Your task to perform on an android device: install app "Facebook" Image 0: 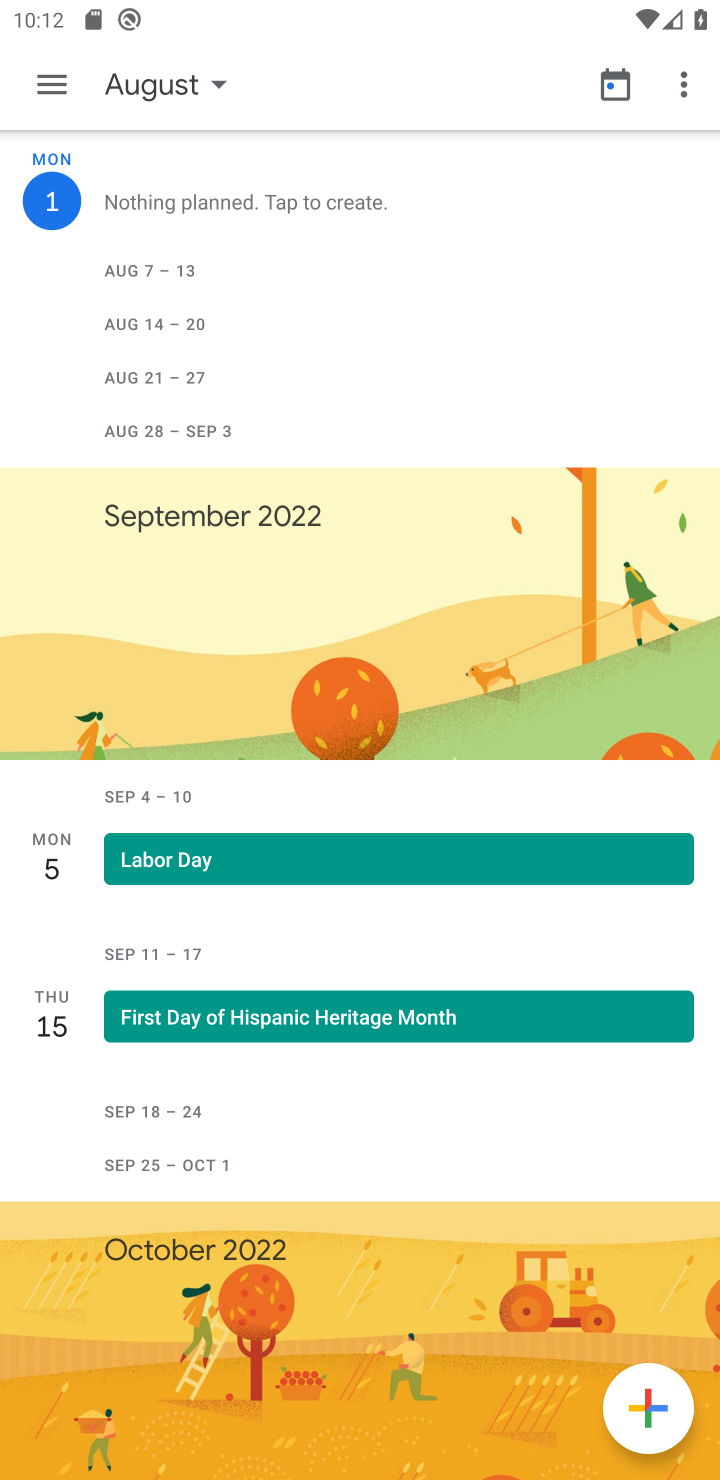
Step 0: press home button
Your task to perform on an android device: install app "Facebook" Image 1: 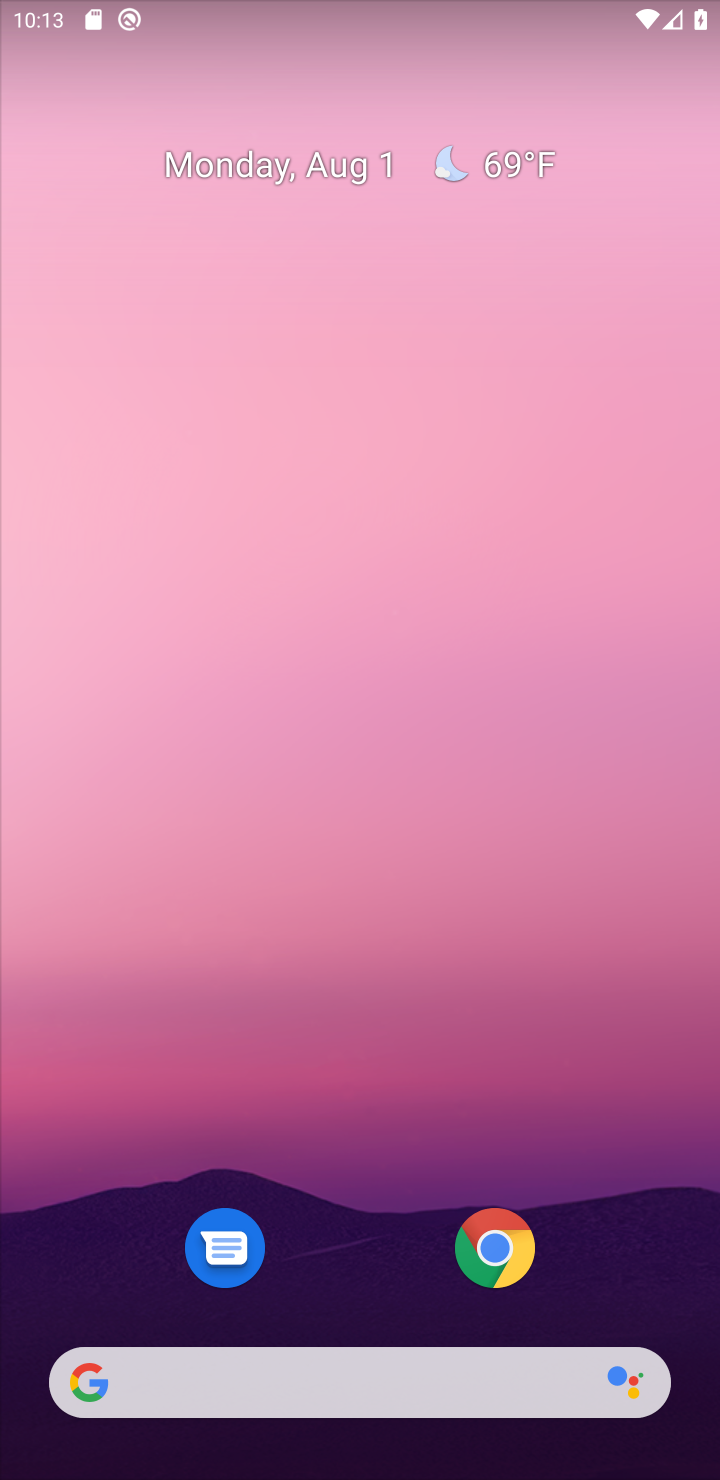
Step 1: drag from (316, 661) to (418, 113)
Your task to perform on an android device: install app "Facebook" Image 2: 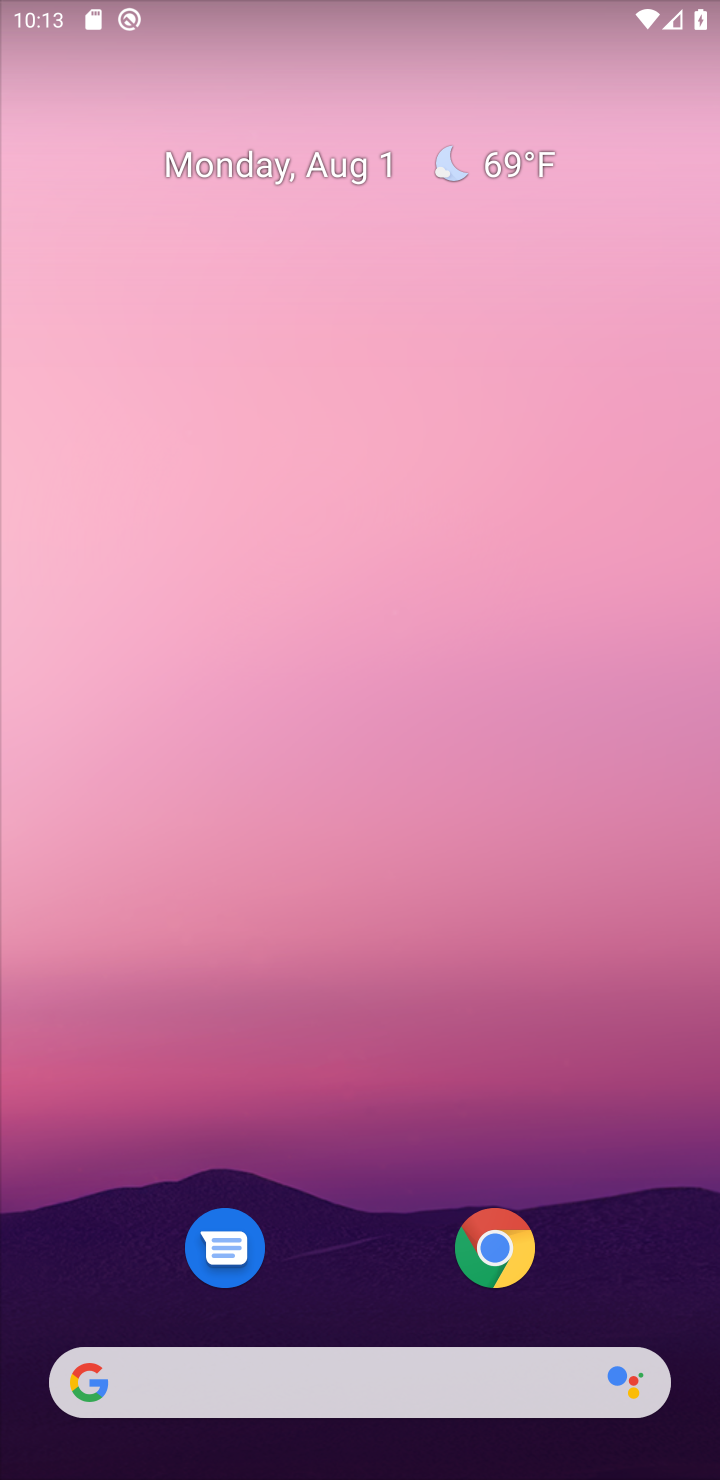
Step 2: drag from (355, 887) to (375, 95)
Your task to perform on an android device: install app "Facebook" Image 3: 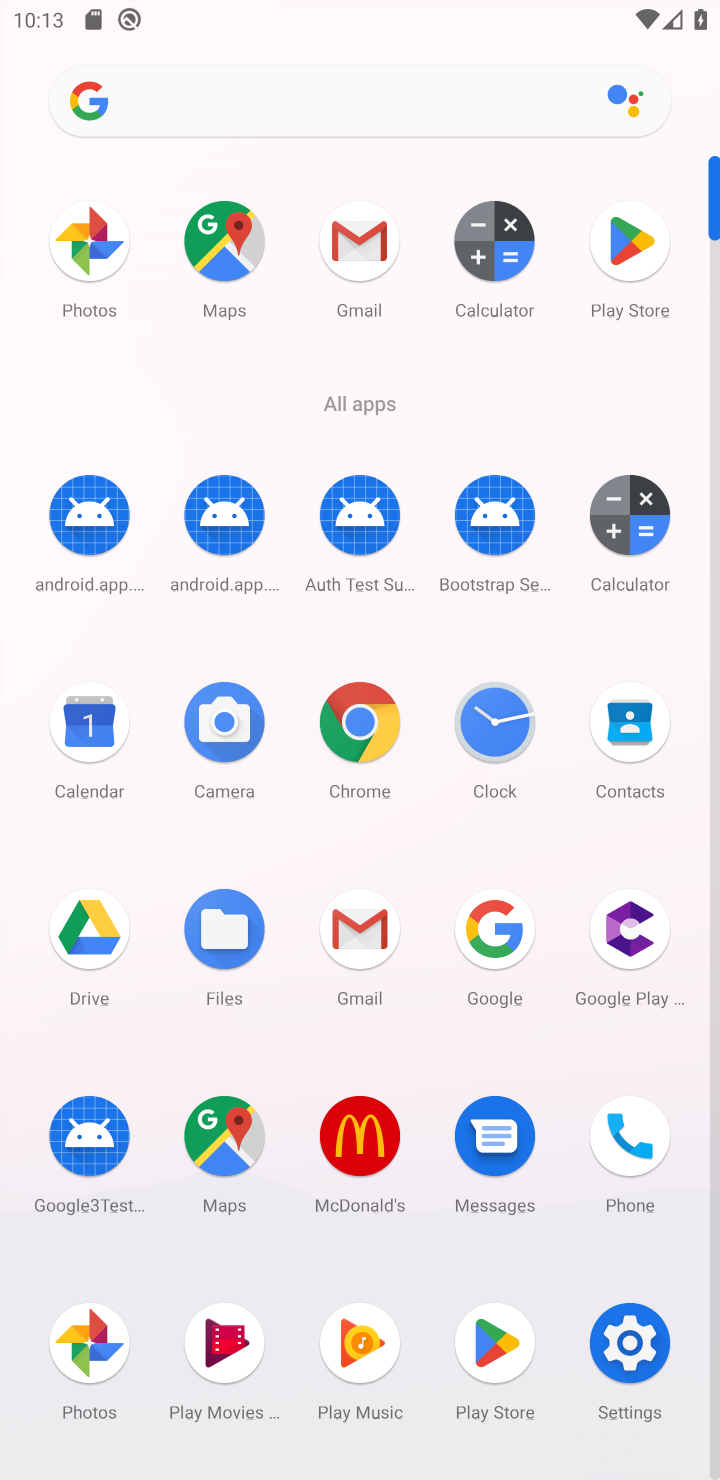
Step 3: click (607, 243)
Your task to perform on an android device: install app "Facebook" Image 4: 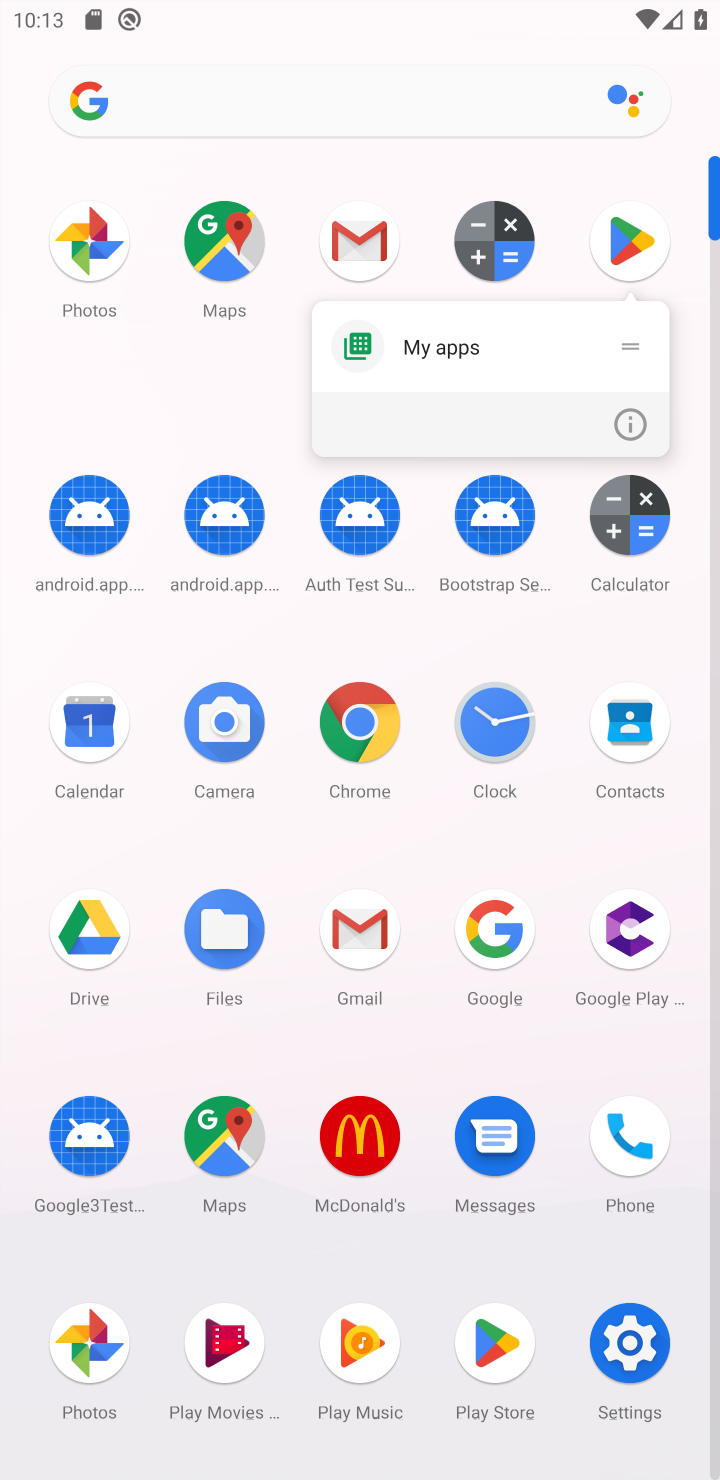
Step 4: click (620, 248)
Your task to perform on an android device: install app "Facebook" Image 5: 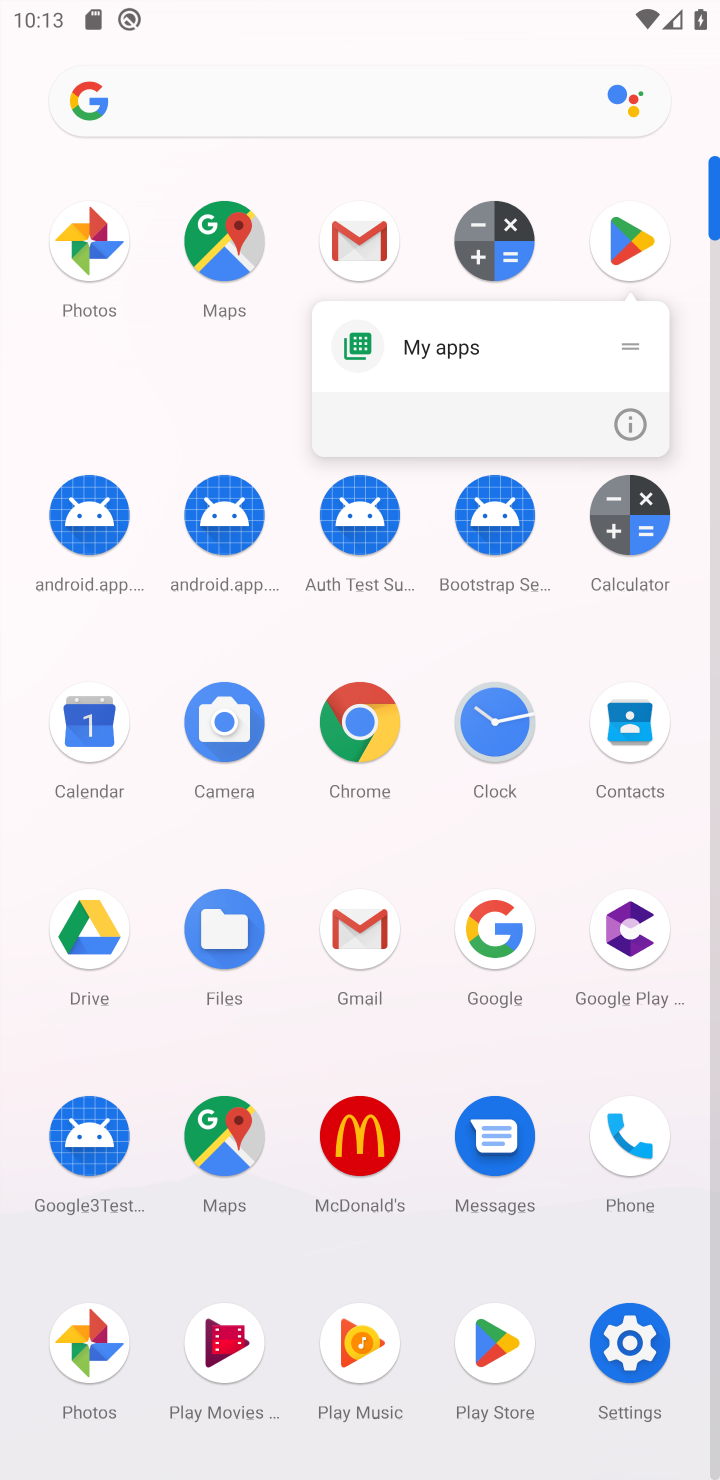
Step 5: click (497, 1346)
Your task to perform on an android device: install app "Facebook" Image 6: 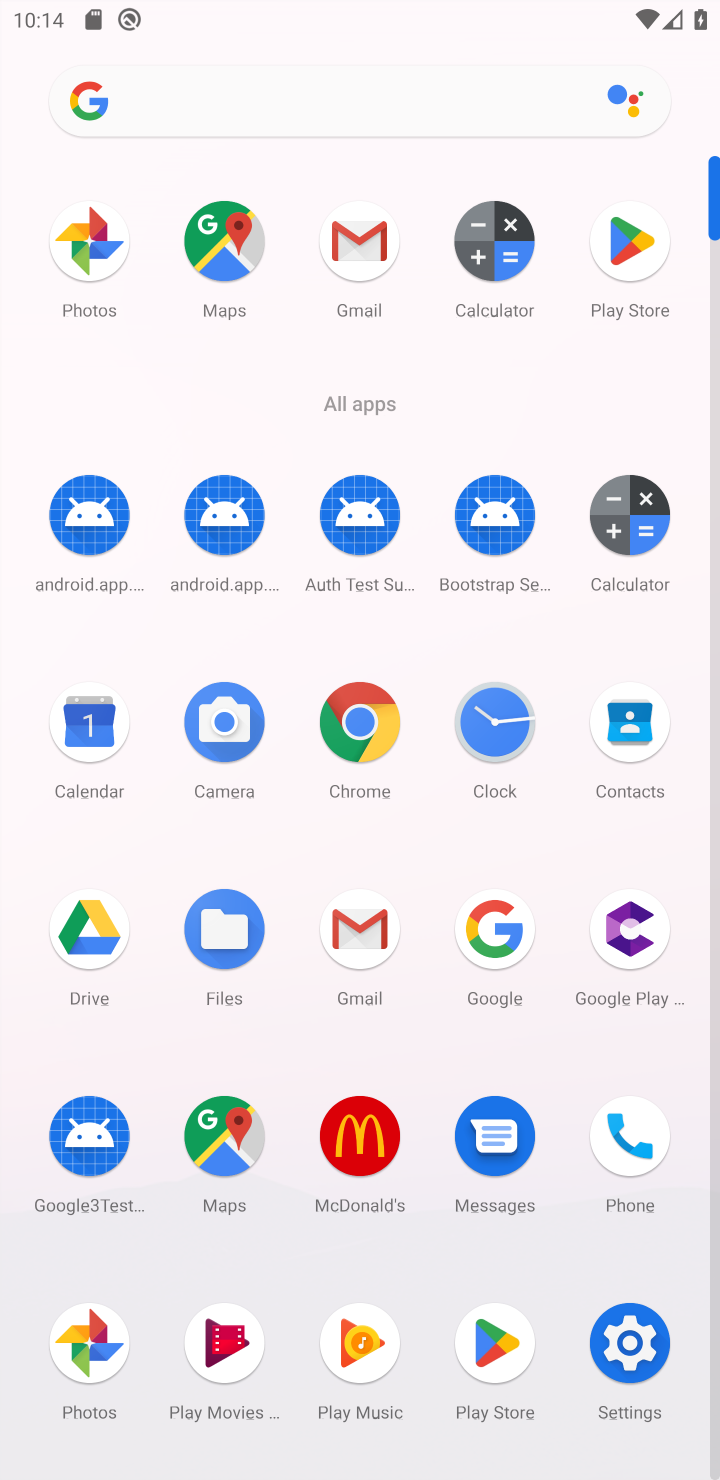
Step 6: click (492, 1347)
Your task to perform on an android device: install app "Facebook" Image 7: 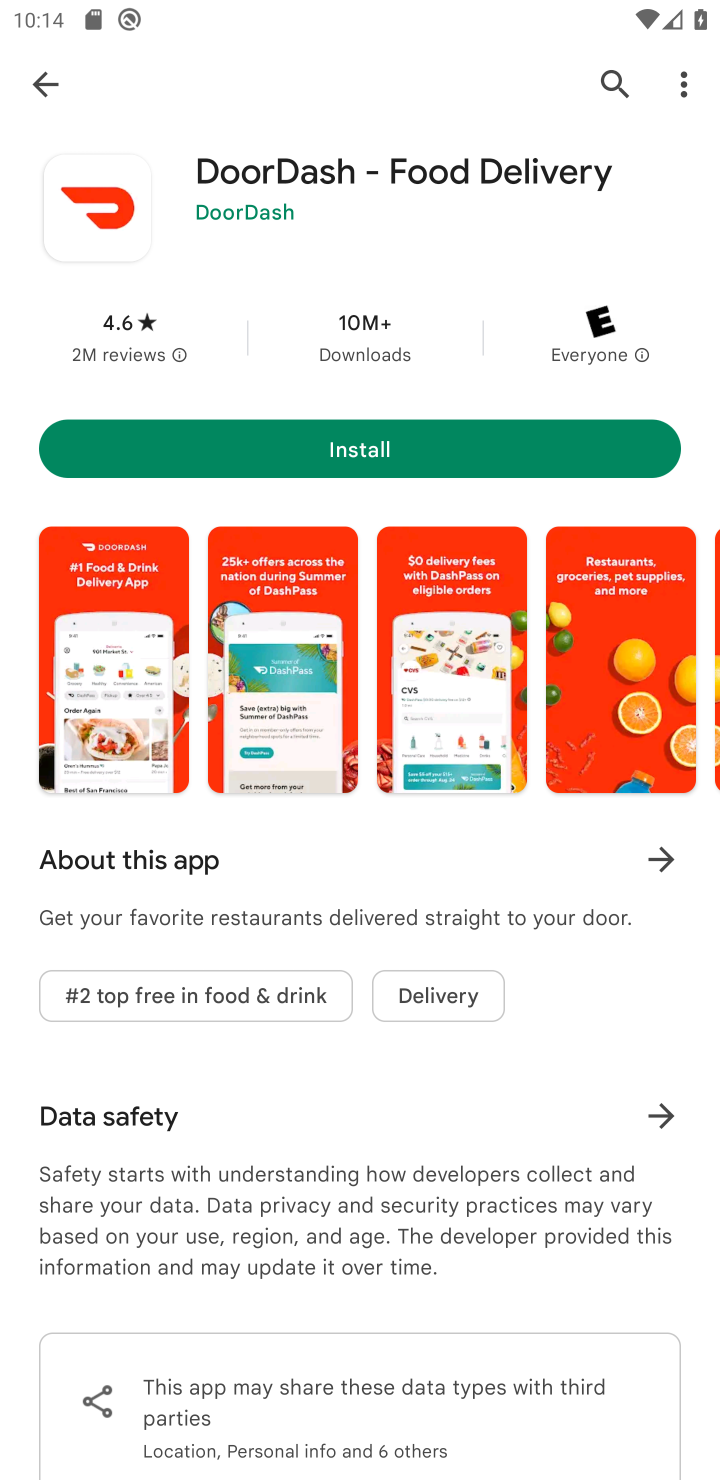
Step 7: click (544, 81)
Your task to perform on an android device: install app "Facebook" Image 8: 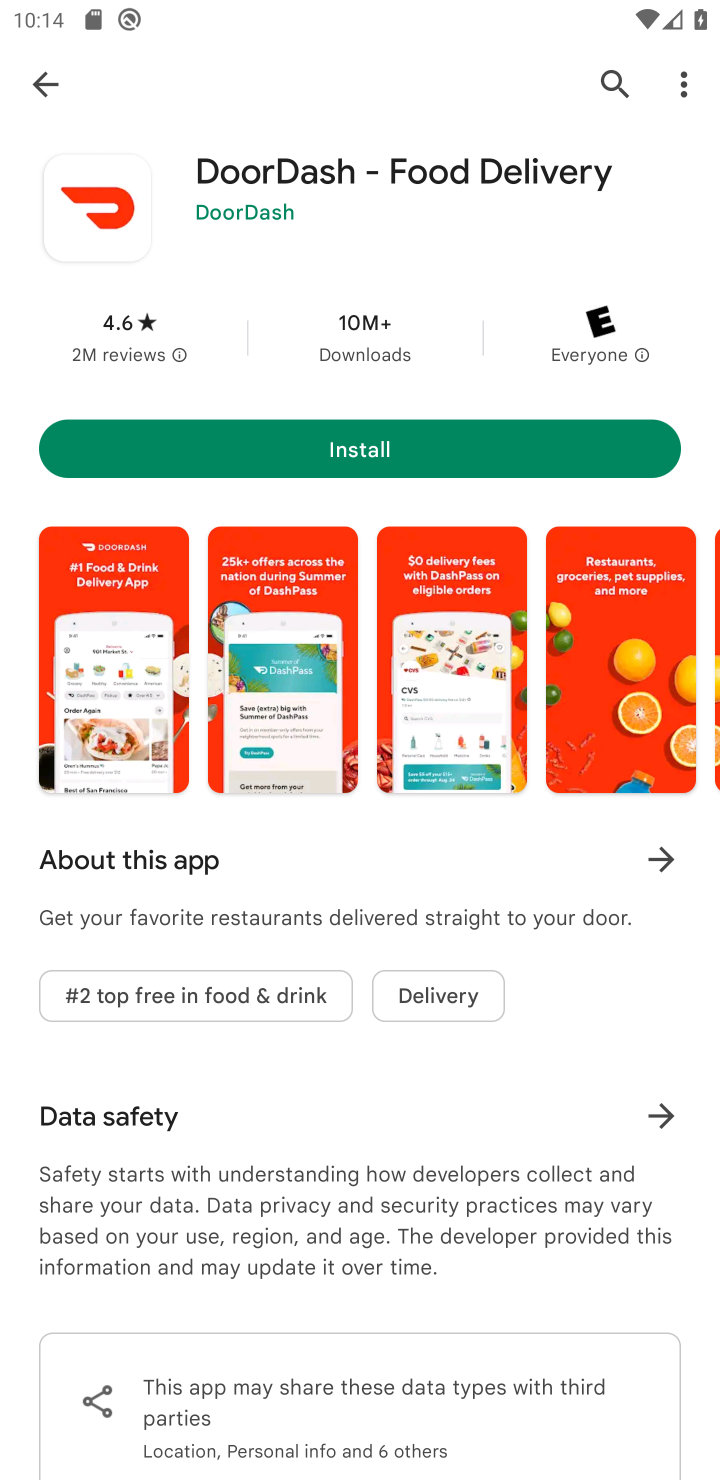
Step 8: click (616, 81)
Your task to perform on an android device: install app "Facebook" Image 9: 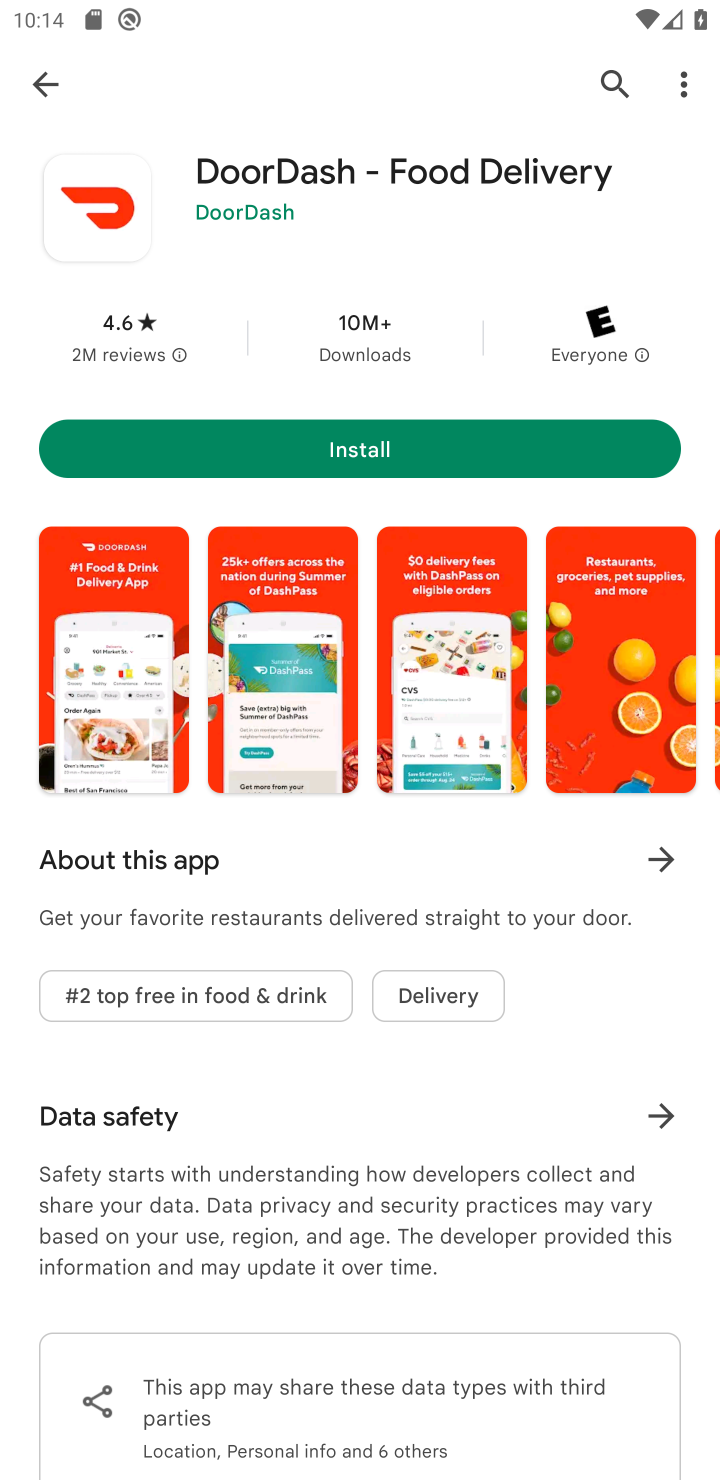
Step 9: click (616, 81)
Your task to perform on an android device: install app "Facebook" Image 10: 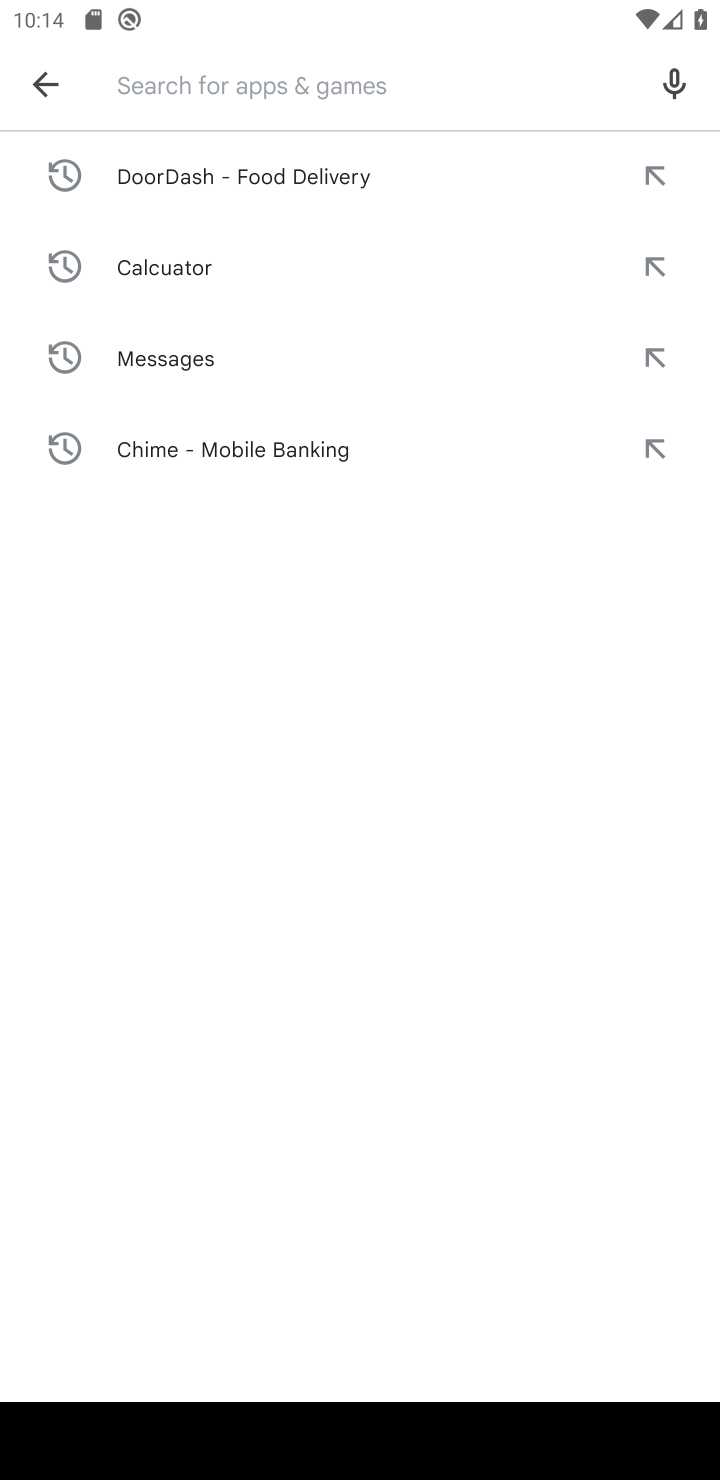
Step 10: type "Facebook"
Your task to perform on an android device: install app "Facebook" Image 11: 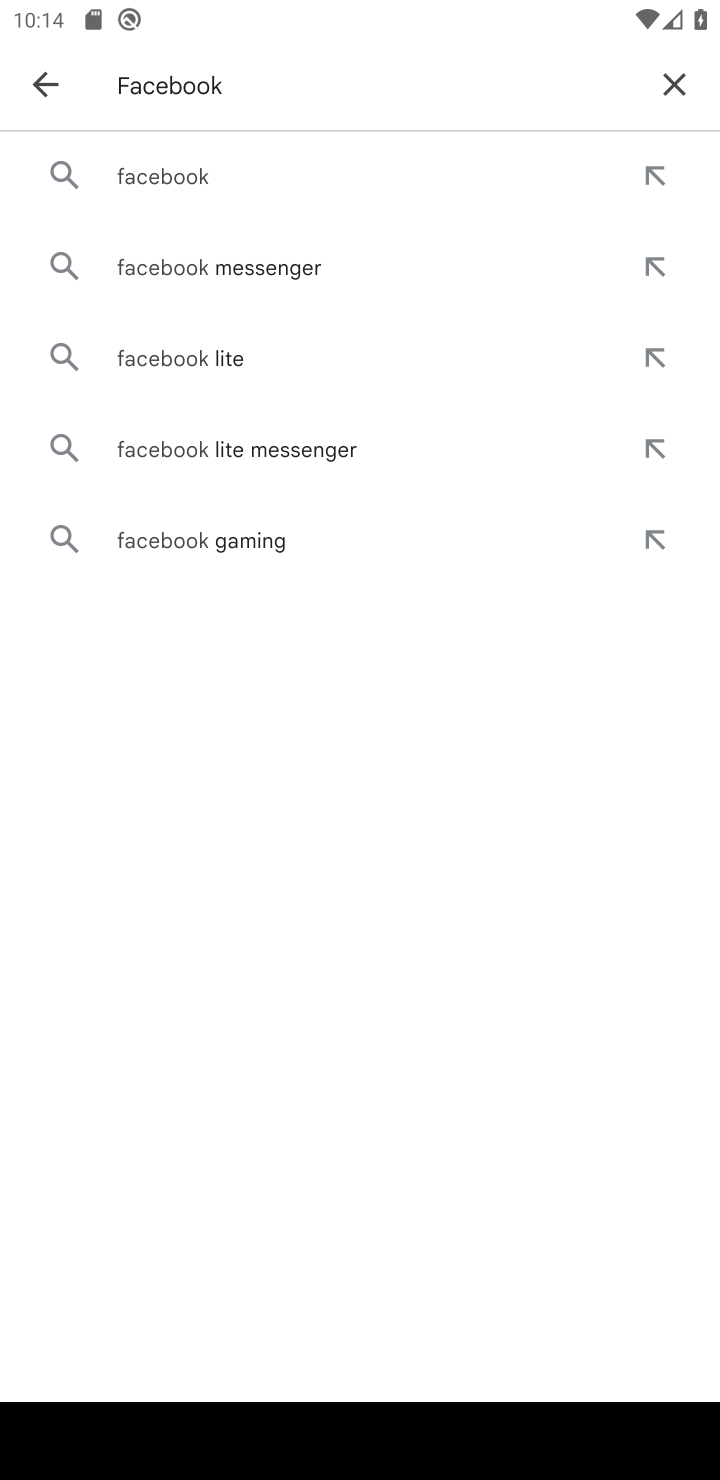
Step 11: click (188, 162)
Your task to perform on an android device: install app "Facebook" Image 12: 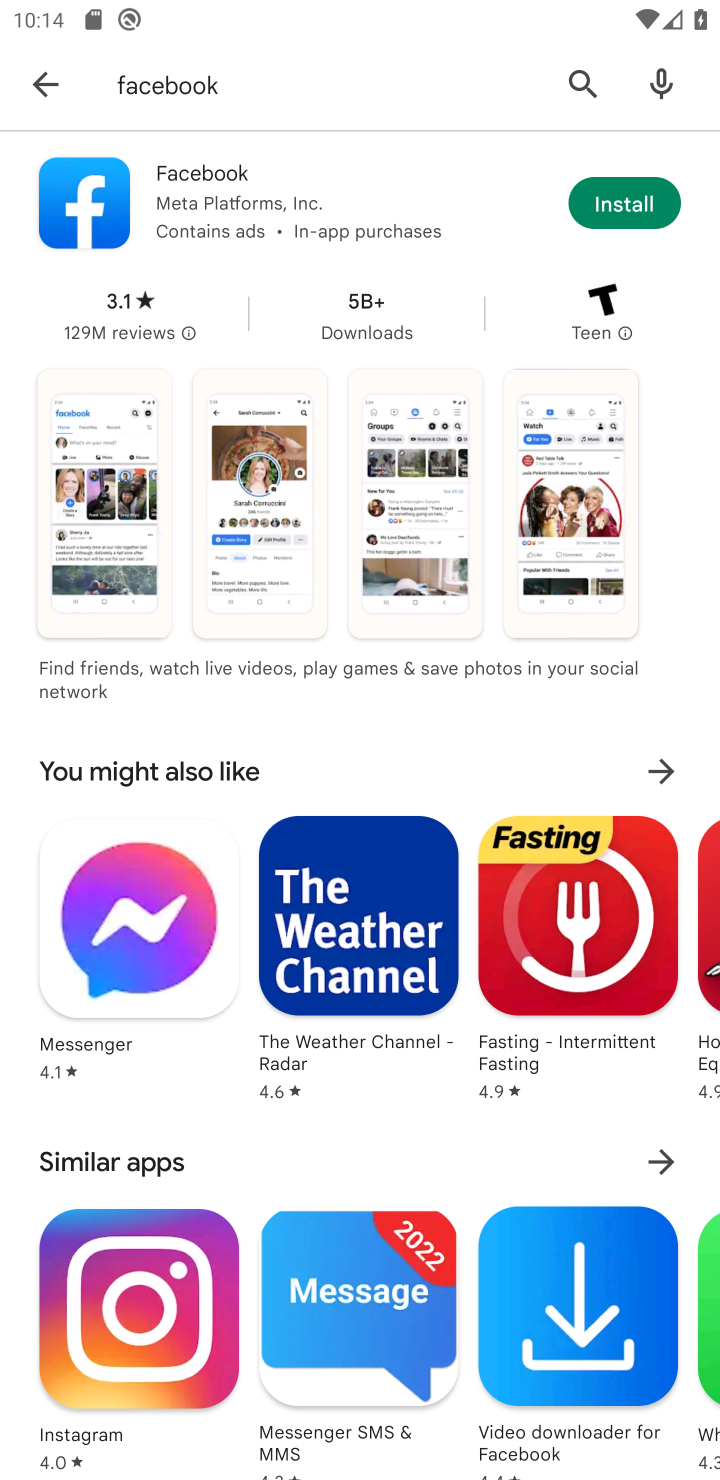
Step 12: click (634, 203)
Your task to perform on an android device: install app "Facebook" Image 13: 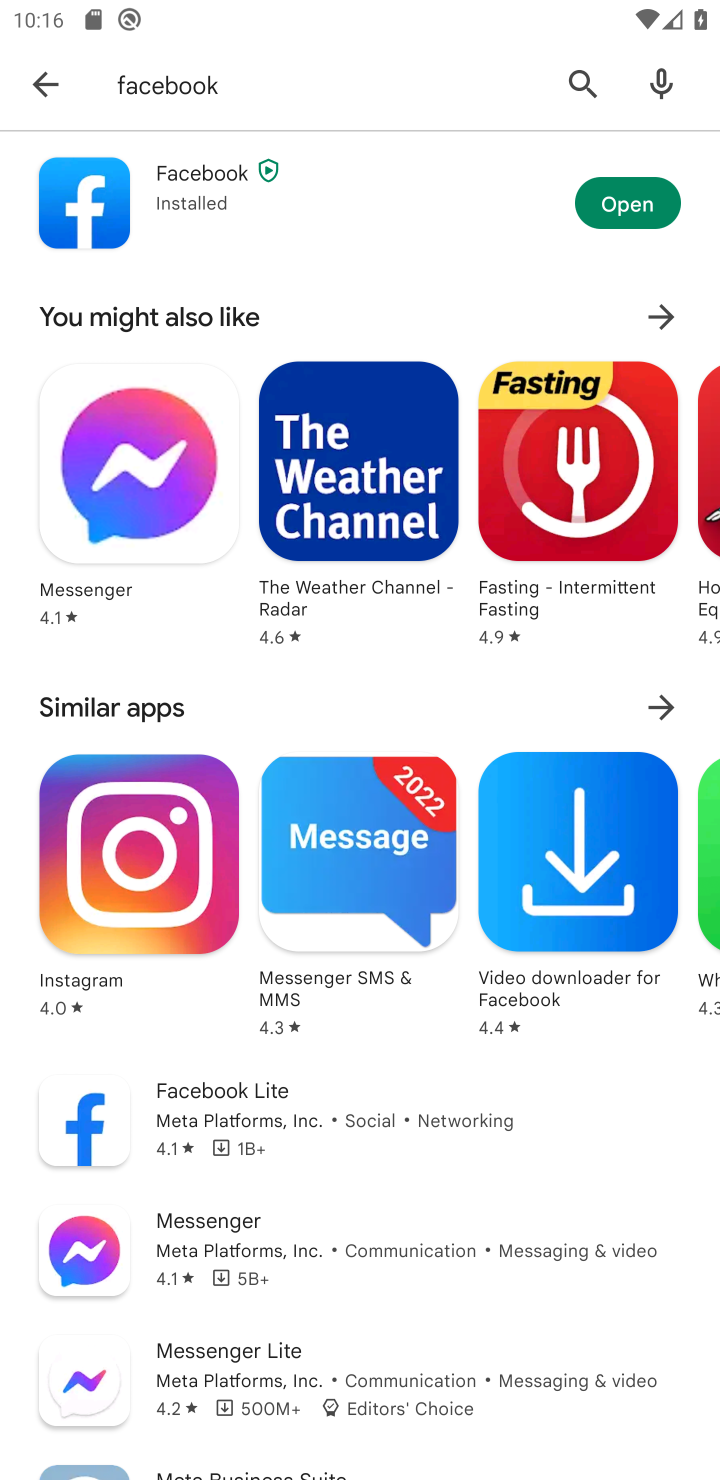
Step 13: task complete